Your task to perform on an android device: delete browsing data in the chrome app Image 0: 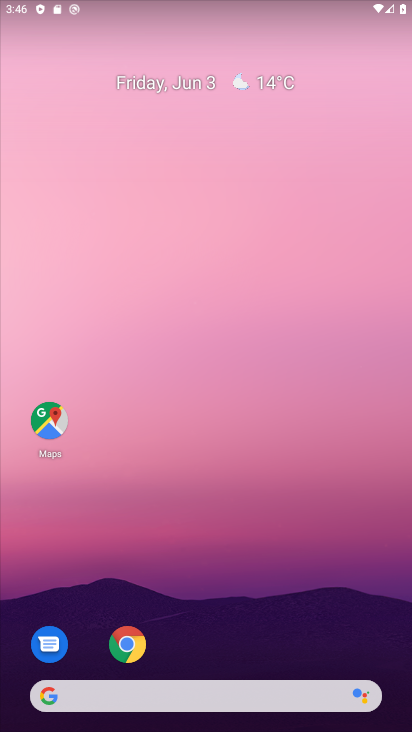
Step 0: click (131, 642)
Your task to perform on an android device: delete browsing data in the chrome app Image 1: 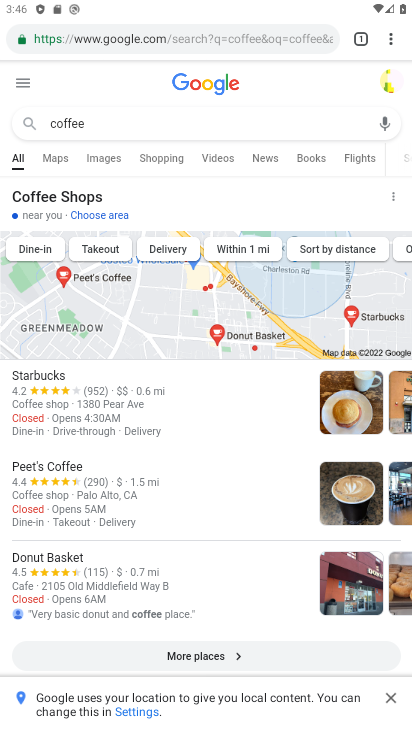
Step 1: click (400, 47)
Your task to perform on an android device: delete browsing data in the chrome app Image 2: 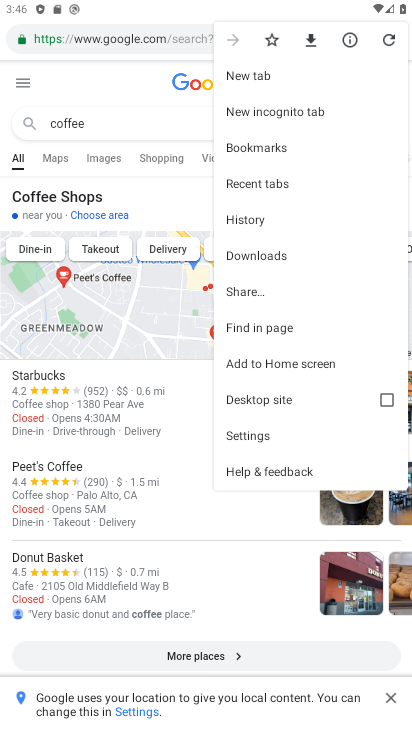
Step 2: click (267, 427)
Your task to perform on an android device: delete browsing data in the chrome app Image 3: 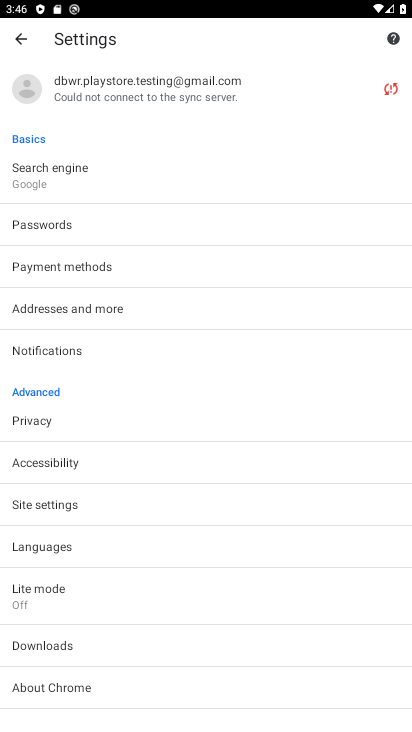
Step 3: click (147, 542)
Your task to perform on an android device: delete browsing data in the chrome app Image 4: 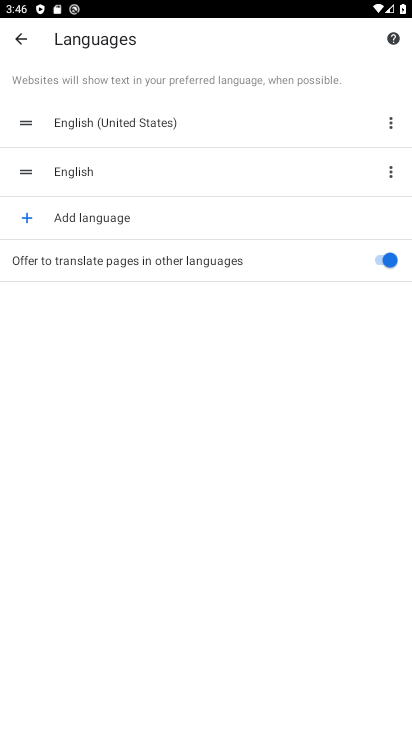
Step 4: click (24, 49)
Your task to perform on an android device: delete browsing data in the chrome app Image 5: 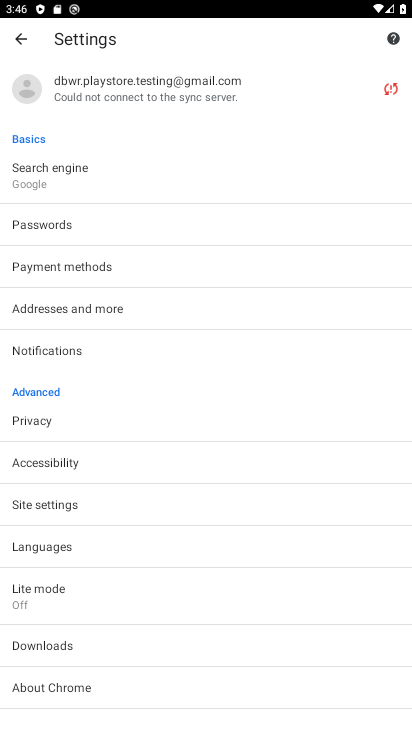
Step 5: drag from (175, 331) to (159, 161)
Your task to perform on an android device: delete browsing data in the chrome app Image 6: 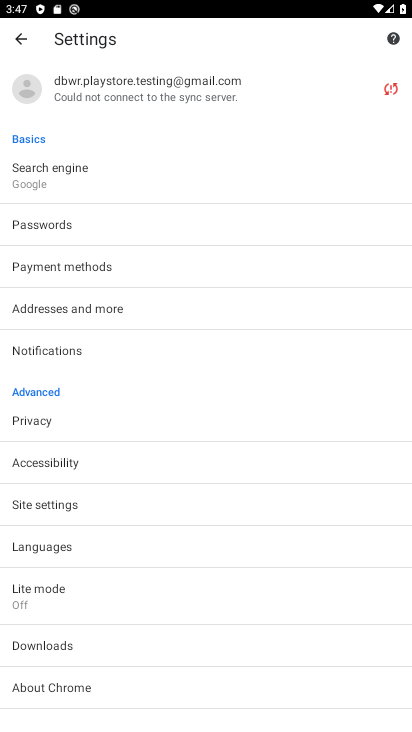
Step 6: drag from (157, 421) to (178, 89)
Your task to perform on an android device: delete browsing data in the chrome app Image 7: 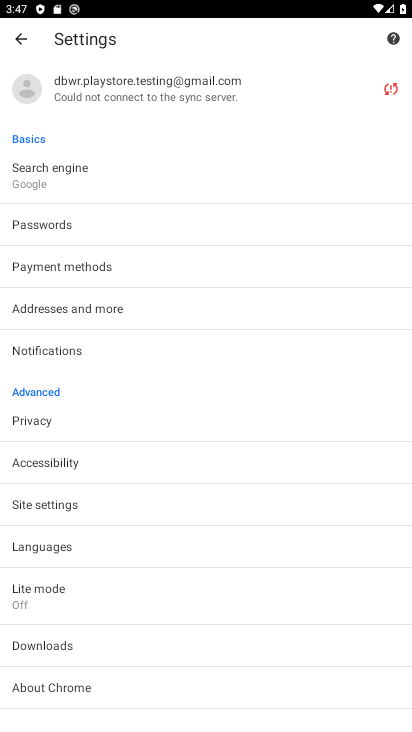
Step 7: drag from (172, 467) to (182, 209)
Your task to perform on an android device: delete browsing data in the chrome app Image 8: 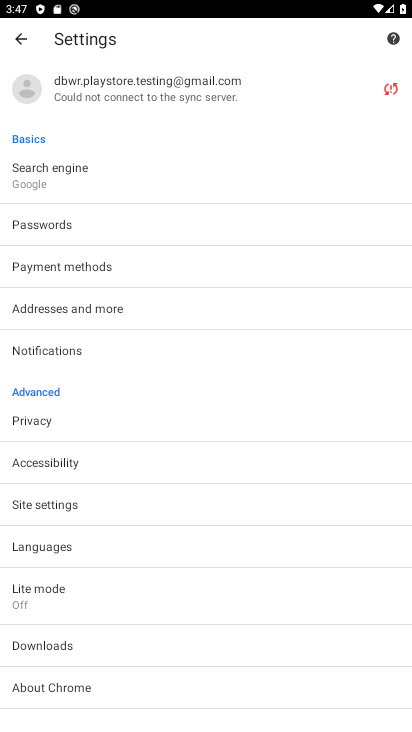
Step 8: drag from (181, 651) to (204, 138)
Your task to perform on an android device: delete browsing data in the chrome app Image 9: 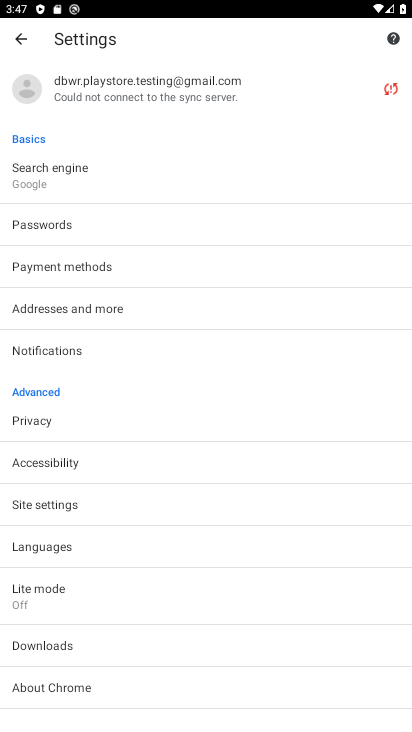
Step 9: drag from (196, 159) to (185, 665)
Your task to perform on an android device: delete browsing data in the chrome app Image 10: 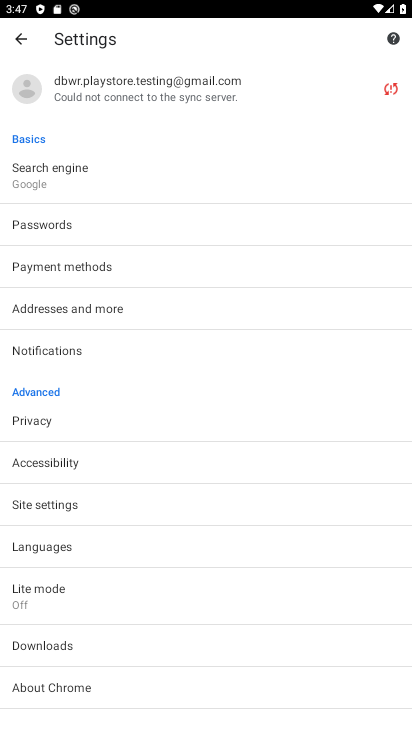
Step 10: click (26, 49)
Your task to perform on an android device: delete browsing data in the chrome app Image 11: 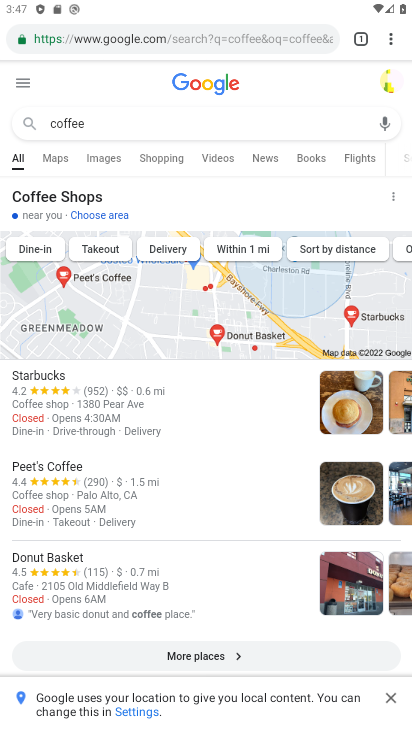
Step 11: click (394, 36)
Your task to perform on an android device: delete browsing data in the chrome app Image 12: 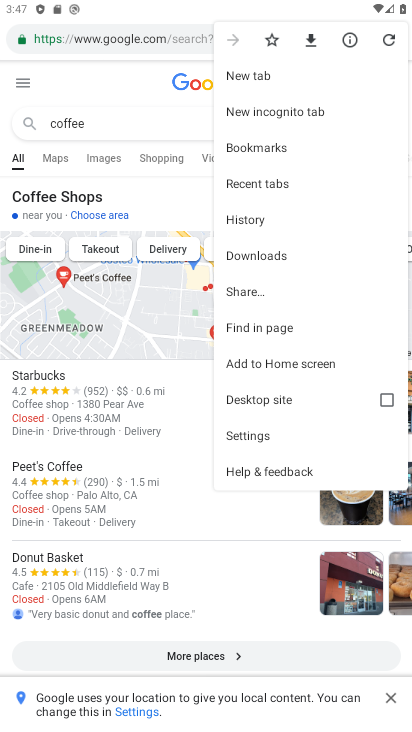
Step 12: click (243, 230)
Your task to perform on an android device: delete browsing data in the chrome app Image 13: 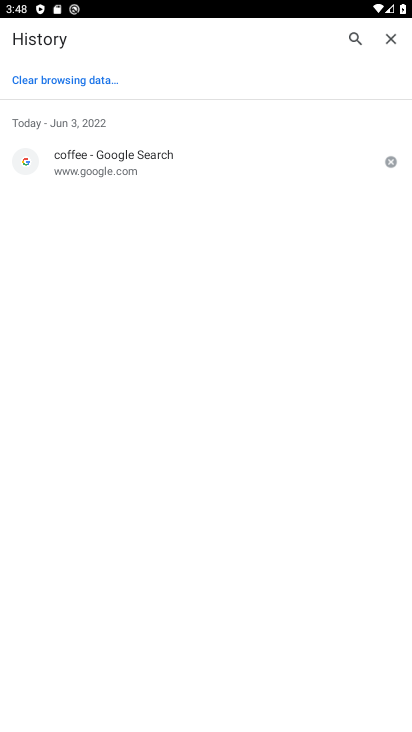
Step 13: click (105, 82)
Your task to perform on an android device: delete browsing data in the chrome app Image 14: 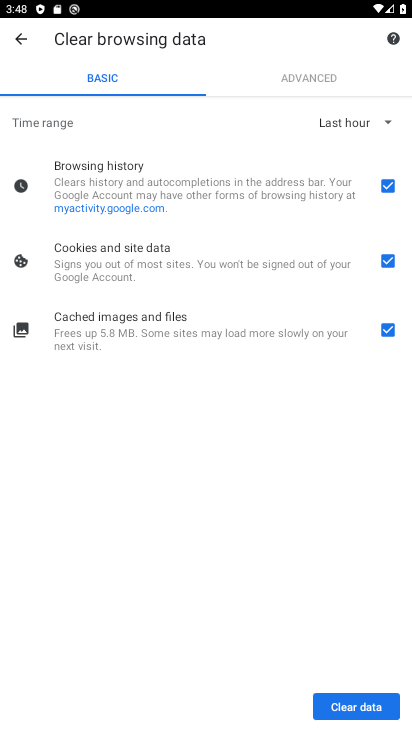
Step 14: click (342, 710)
Your task to perform on an android device: delete browsing data in the chrome app Image 15: 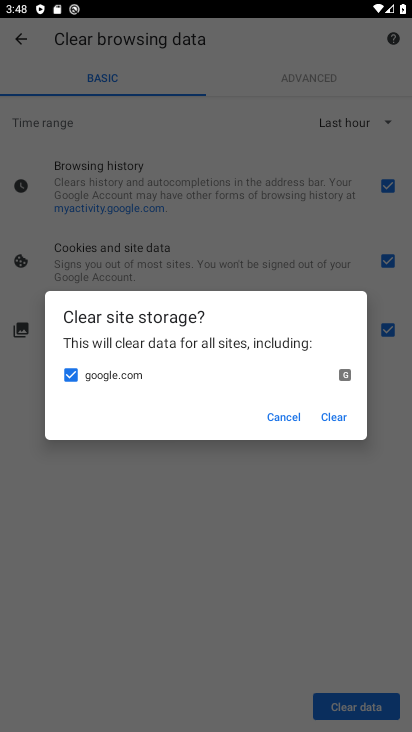
Step 15: click (324, 424)
Your task to perform on an android device: delete browsing data in the chrome app Image 16: 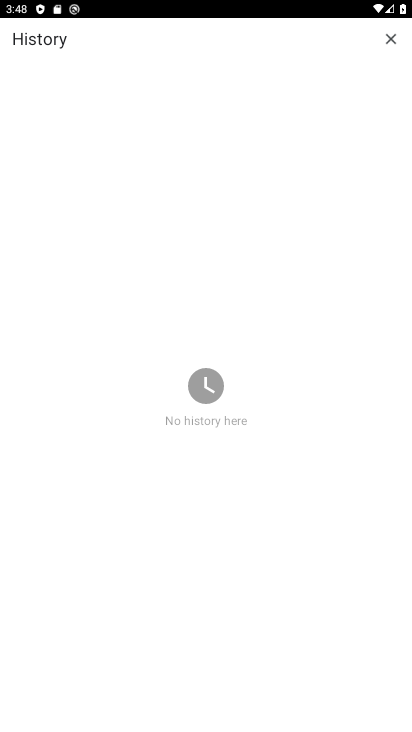
Step 16: task complete